Your task to perform on an android device: What's on my calendar tomorrow? Image 0: 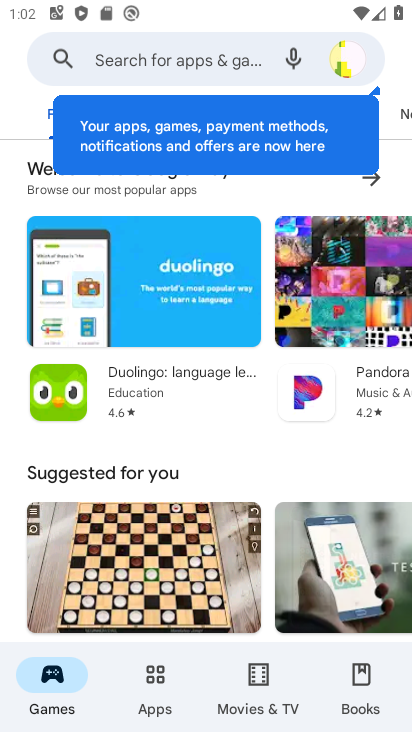
Step 0: press back button
Your task to perform on an android device: What's on my calendar tomorrow? Image 1: 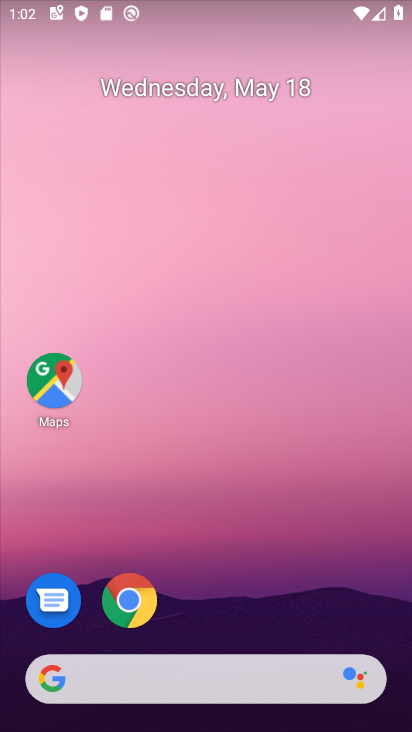
Step 1: drag from (250, 613) to (177, 102)
Your task to perform on an android device: What's on my calendar tomorrow? Image 2: 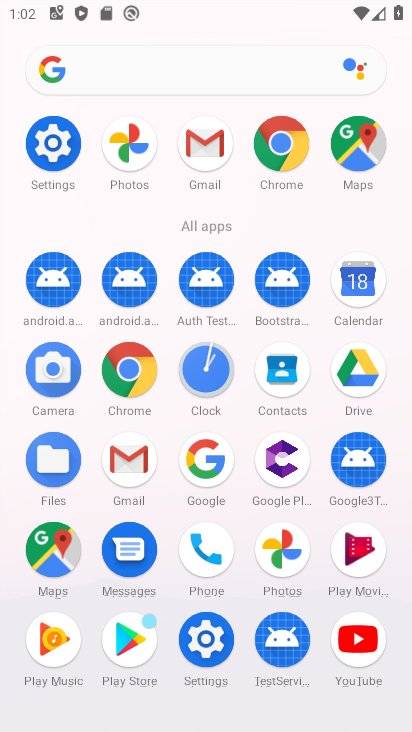
Step 2: click (358, 279)
Your task to perform on an android device: What's on my calendar tomorrow? Image 3: 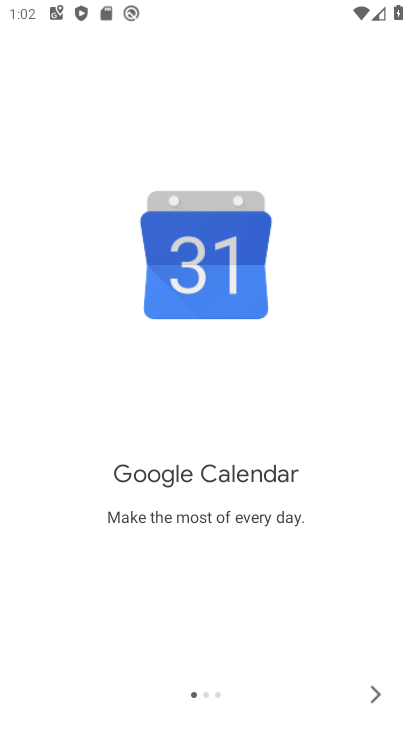
Step 3: click (374, 690)
Your task to perform on an android device: What's on my calendar tomorrow? Image 4: 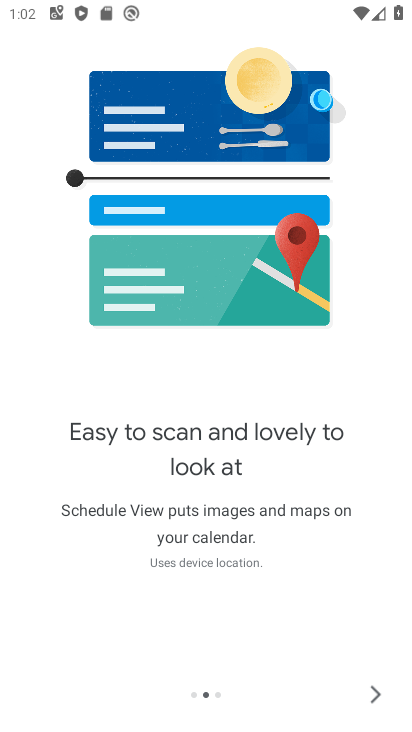
Step 4: click (374, 690)
Your task to perform on an android device: What's on my calendar tomorrow? Image 5: 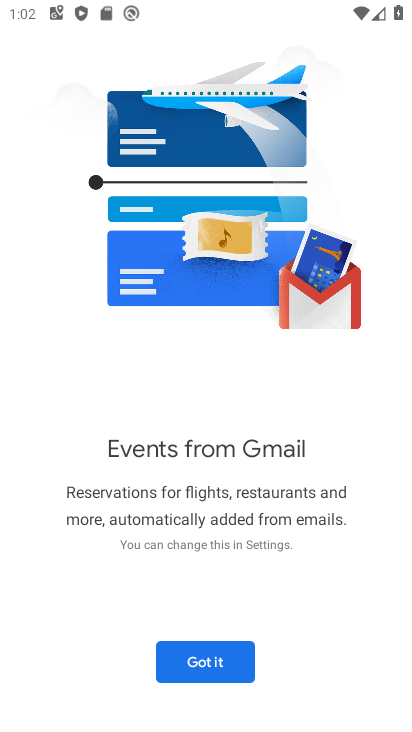
Step 5: click (194, 662)
Your task to perform on an android device: What's on my calendar tomorrow? Image 6: 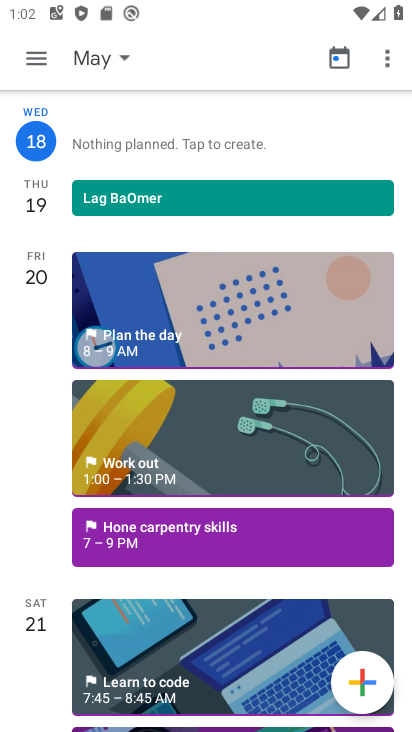
Step 6: click (97, 56)
Your task to perform on an android device: What's on my calendar tomorrow? Image 7: 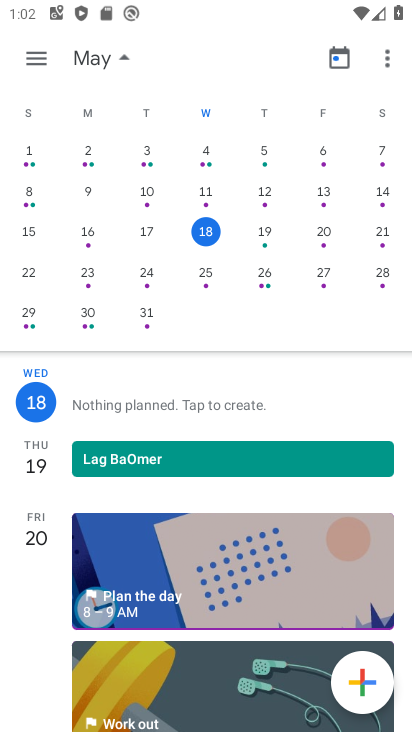
Step 7: click (266, 227)
Your task to perform on an android device: What's on my calendar tomorrow? Image 8: 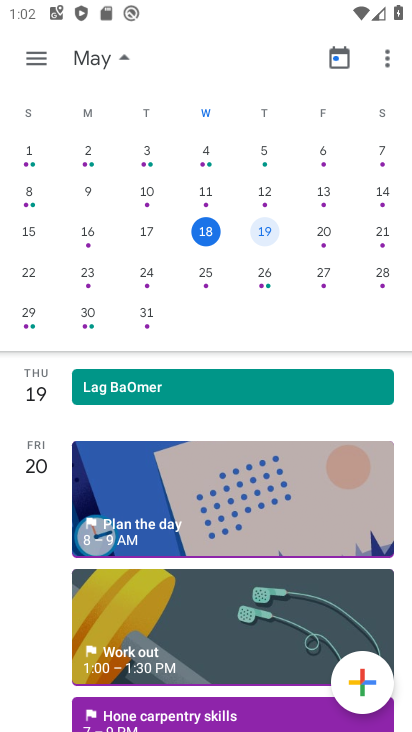
Step 8: click (166, 390)
Your task to perform on an android device: What's on my calendar tomorrow? Image 9: 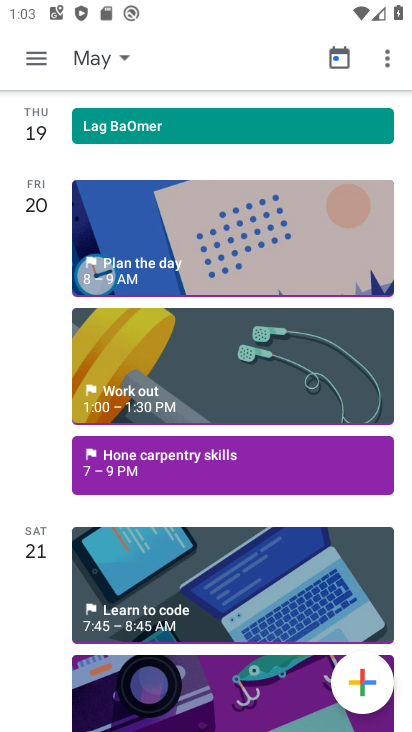
Step 9: click (171, 126)
Your task to perform on an android device: What's on my calendar tomorrow? Image 10: 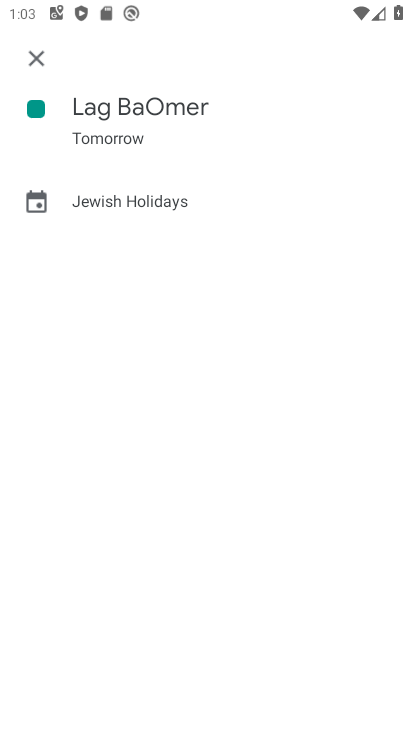
Step 10: task complete